Your task to perform on an android device: change the clock style Image 0: 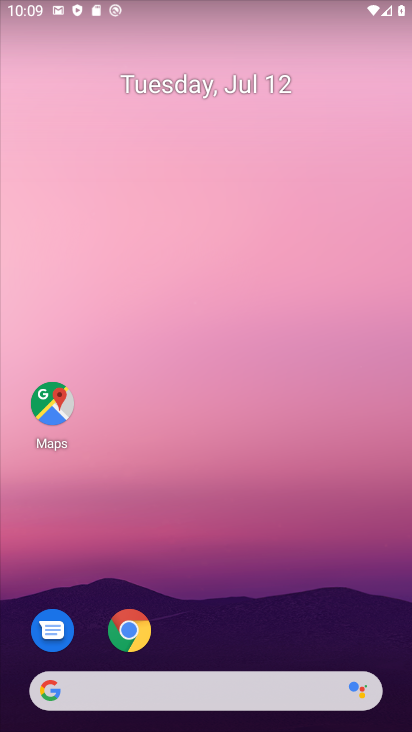
Step 0: drag from (345, 620) to (330, 168)
Your task to perform on an android device: change the clock style Image 1: 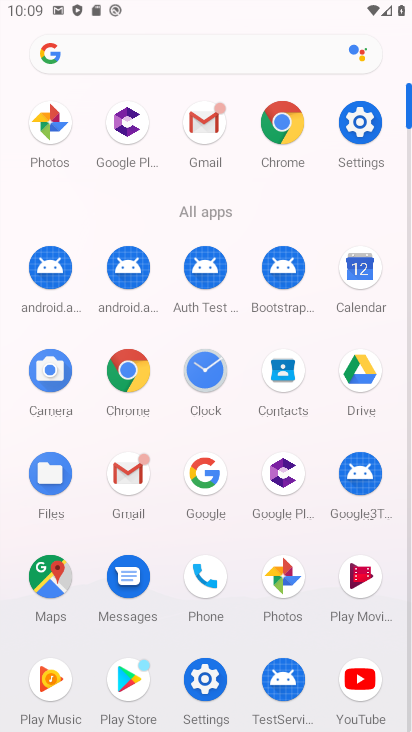
Step 1: click (206, 366)
Your task to perform on an android device: change the clock style Image 2: 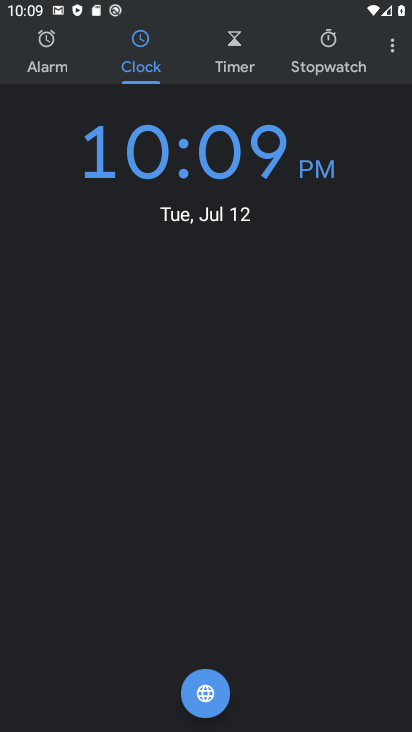
Step 2: click (395, 55)
Your task to perform on an android device: change the clock style Image 3: 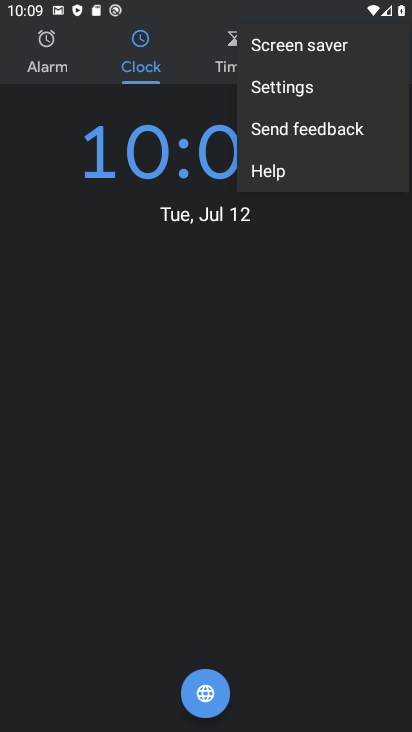
Step 3: click (318, 92)
Your task to perform on an android device: change the clock style Image 4: 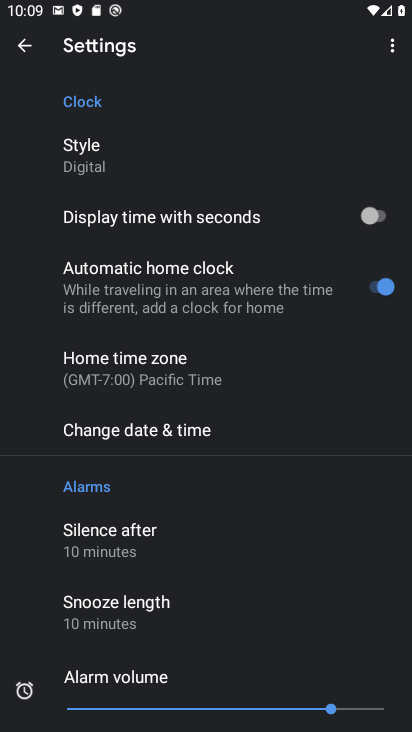
Step 4: drag from (310, 415) to (312, 307)
Your task to perform on an android device: change the clock style Image 5: 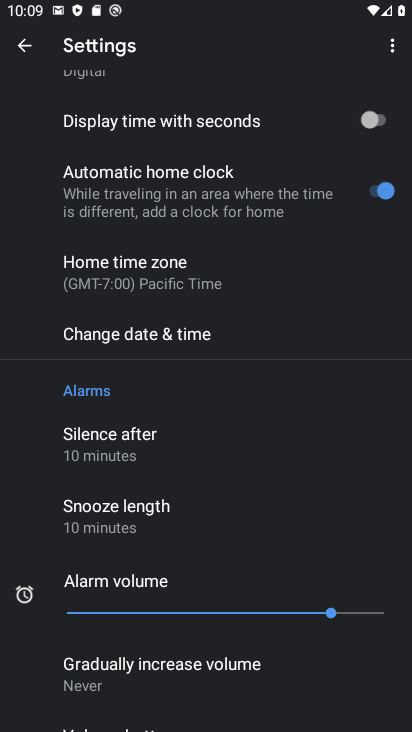
Step 5: drag from (320, 392) to (320, 310)
Your task to perform on an android device: change the clock style Image 6: 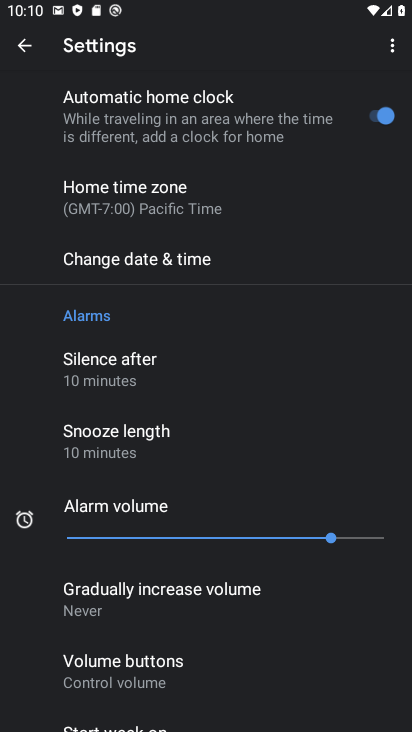
Step 6: drag from (318, 406) to (323, 314)
Your task to perform on an android device: change the clock style Image 7: 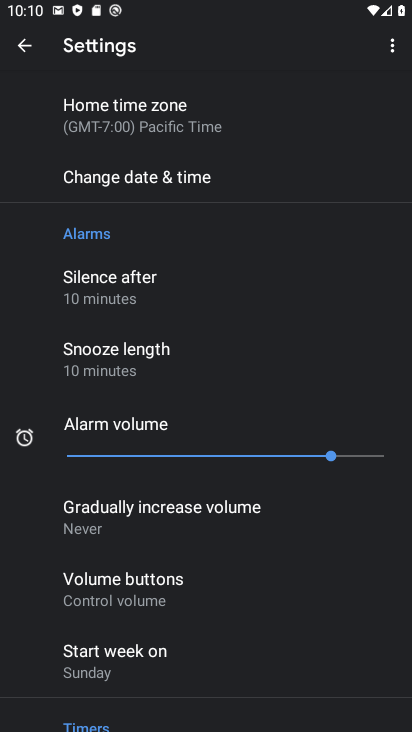
Step 7: drag from (355, 523) to (355, 364)
Your task to perform on an android device: change the clock style Image 8: 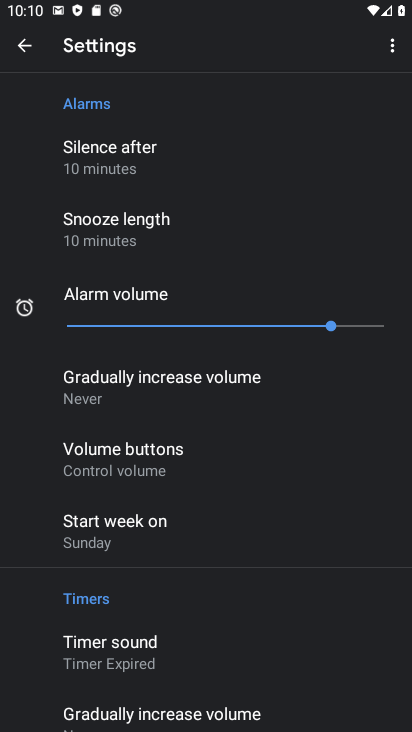
Step 8: drag from (360, 497) to (338, 277)
Your task to perform on an android device: change the clock style Image 9: 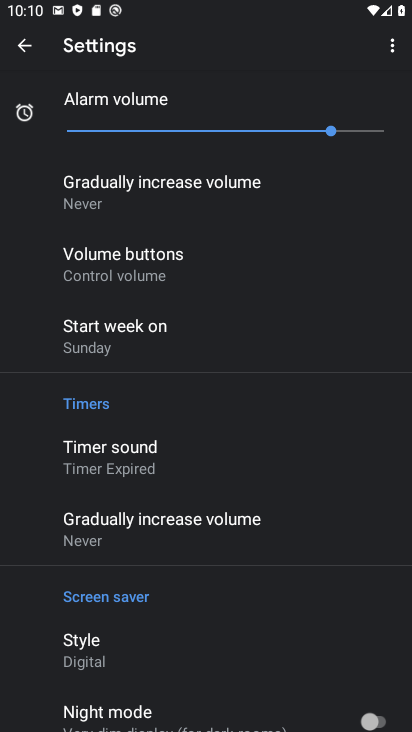
Step 9: drag from (337, 334) to (338, 418)
Your task to perform on an android device: change the clock style Image 10: 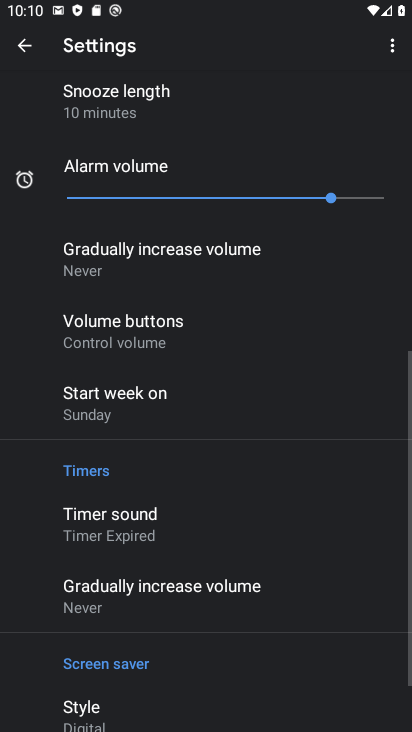
Step 10: drag from (338, 325) to (338, 430)
Your task to perform on an android device: change the clock style Image 11: 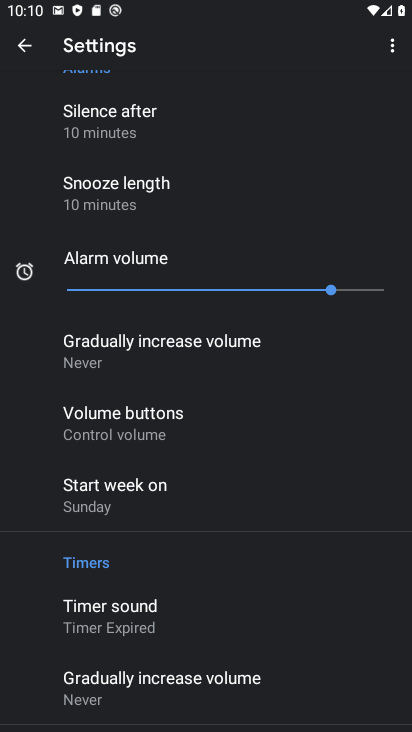
Step 11: drag from (359, 255) to (362, 368)
Your task to perform on an android device: change the clock style Image 12: 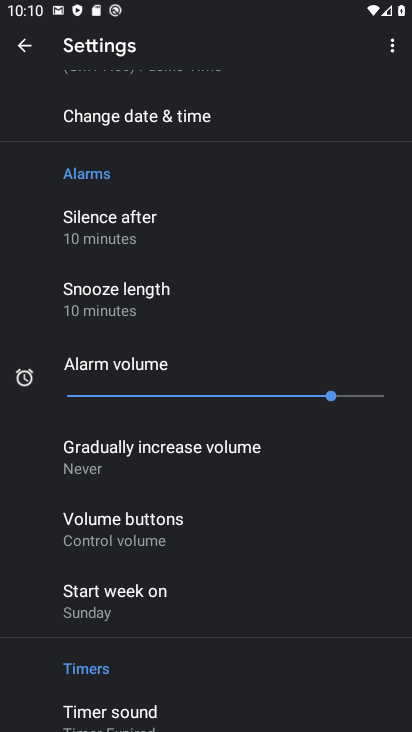
Step 12: drag from (360, 261) to (363, 352)
Your task to perform on an android device: change the clock style Image 13: 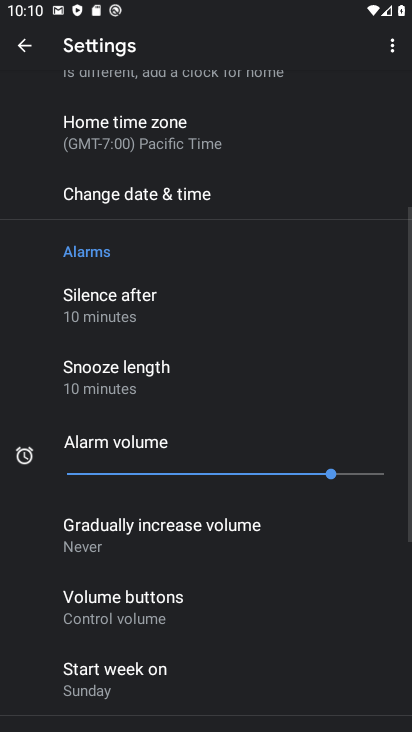
Step 13: drag from (363, 232) to (359, 333)
Your task to perform on an android device: change the clock style Image 14: 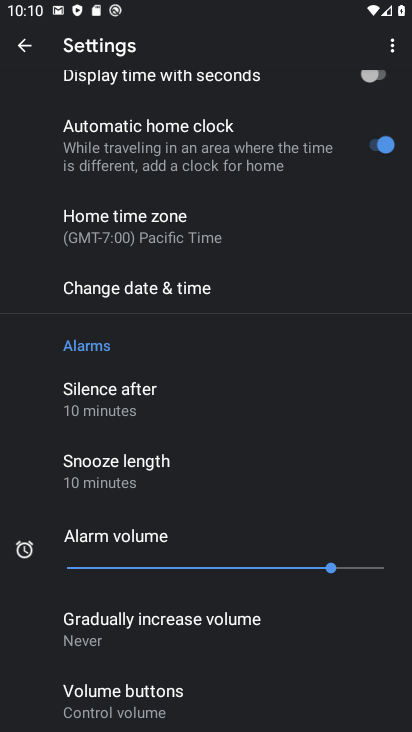
Step 14: drag from (358, 204) to (347, 355)
Your task to perform on an android device: change the clock style Image 15: 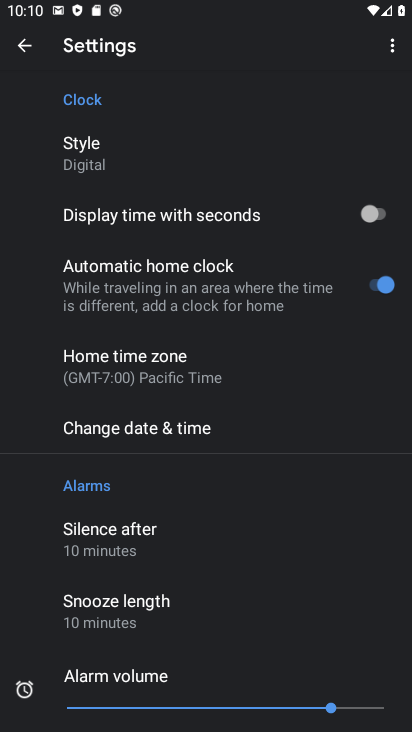
Step 15: click (88, 143)
Your task to perform on an android device: change the clock style Image 16: 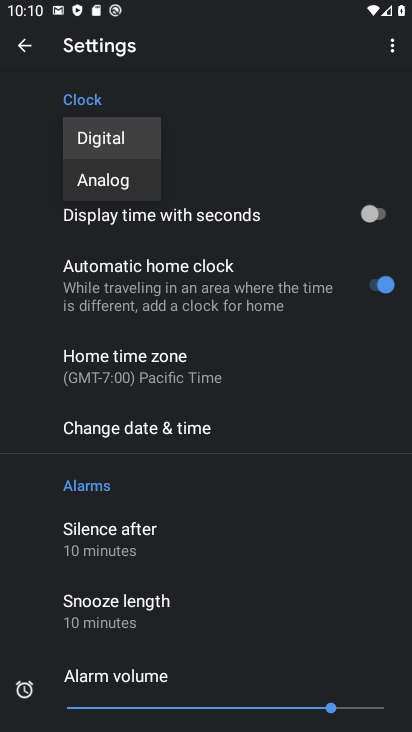
Step 16: click (96, 167)
Your task to perform on an android device: change the clock style Image 17: 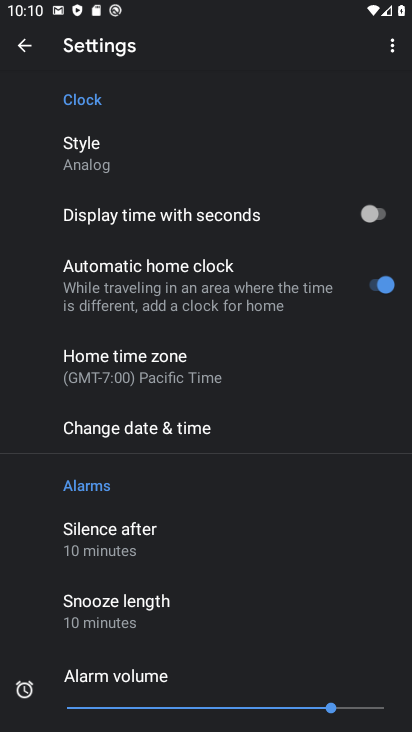
Step 17: task complete